Your task to perform on an android device: Go to Google Image 0: 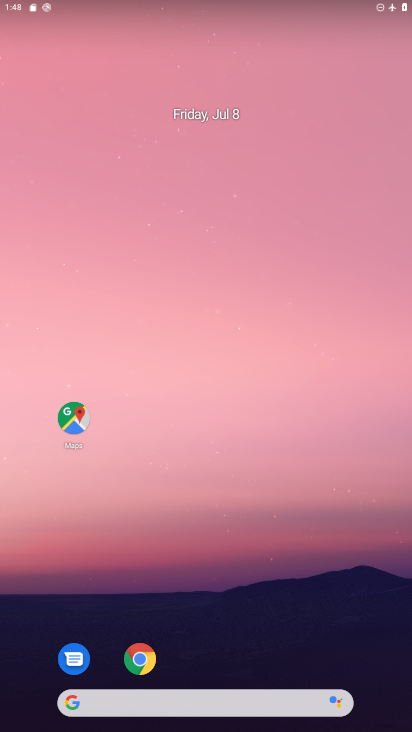
Step 0: drag from (243, 635) to (293, 158)
Your task to perform on an android device: Go to Google Image 1: 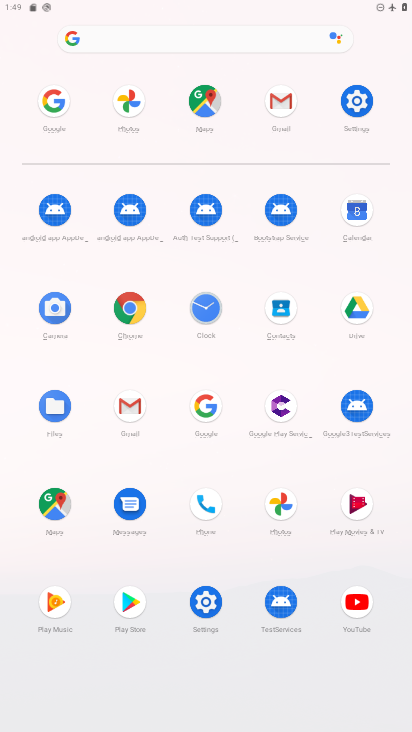
Step 1: click (51, 102)
Your task to perform on an android device: Go to Google Image 2: 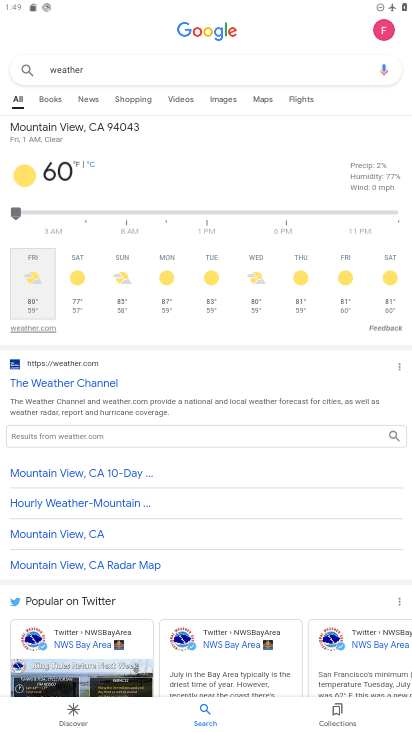
Step 2: task complete